Your task to perform on an android device: Go to Amazon Image 0: 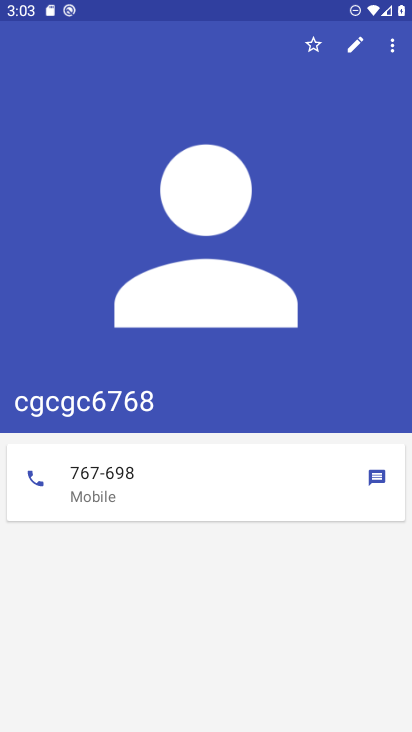
Step 0: press back button
Your task to perform on an android device: Go to Amazon Image 1: 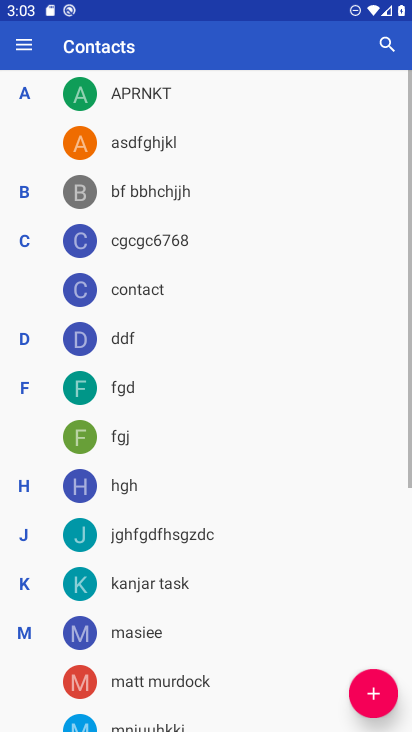
Step 1: press back button
Your task to perform on an android device: Go to Amazon Image 2: 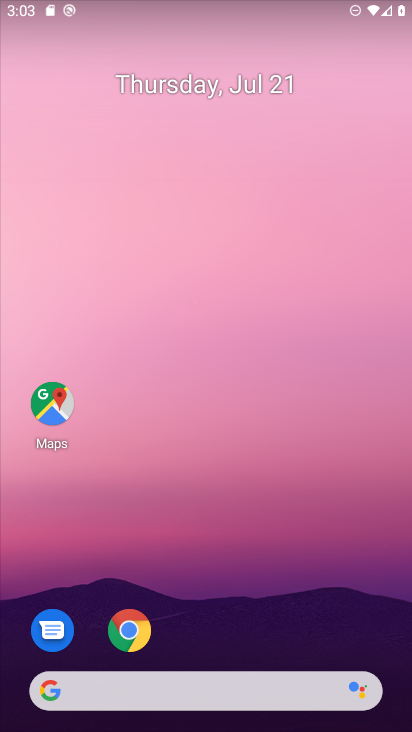
Step 2: click (133, 615)
Your task to perform on an android device: Go to Amazon Image 3: 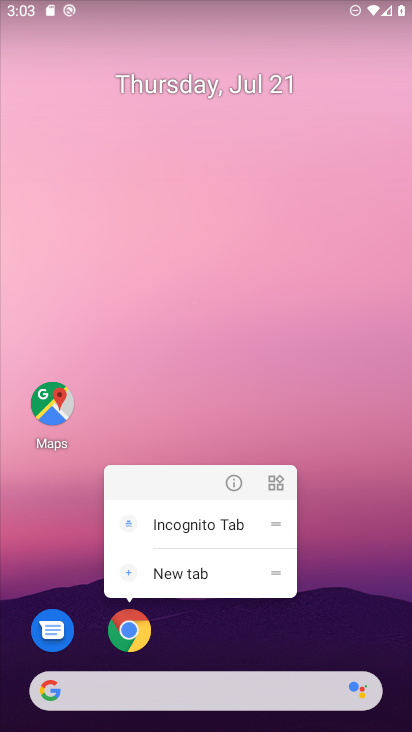
Step 3: click (129, 641)
Your task to perform on an android device: Go to Amazon Image 4: 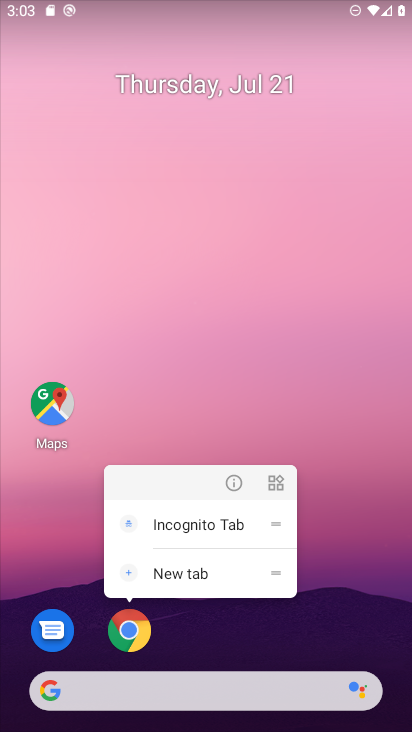
Step 4: click (133, 627)
Your task to perform on an android device: Go to Amazon Image 5: 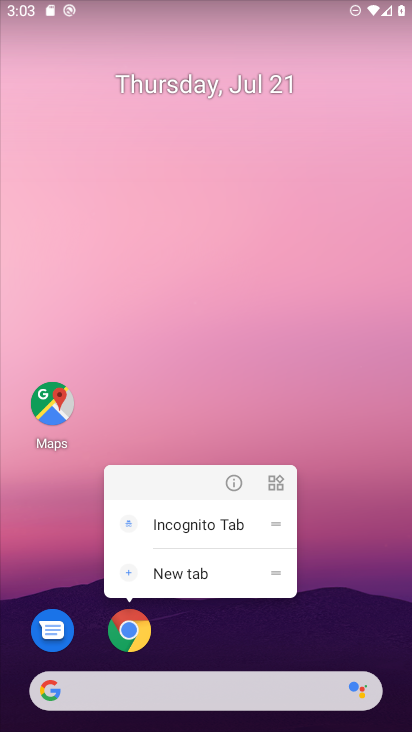
Step 5: click (133, 627)
Your task to perform on an android device: Go to Amazon Image 6: 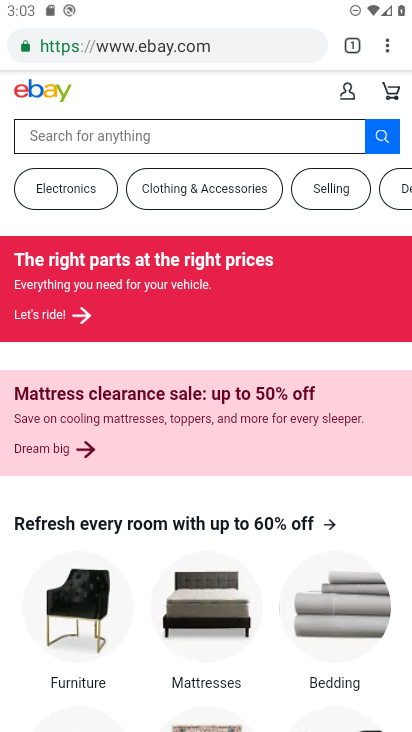
Step 6: click (347, 43)
Your task to perform on an android device: Go to Amazon Image 7: 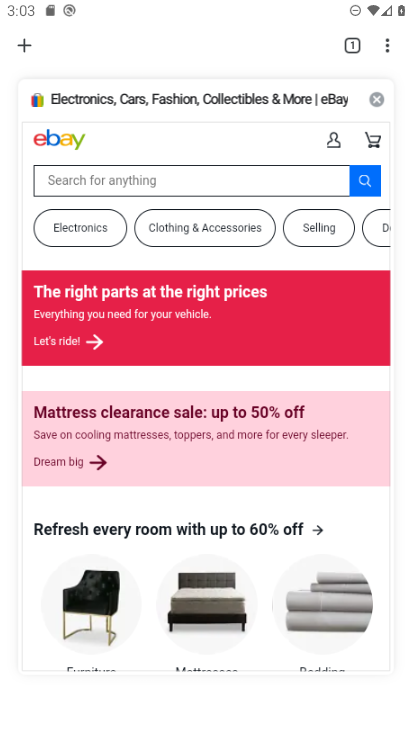
Step 7: click (26, 49)
Your task to perform on an android device: Go to Amazon Image 8: 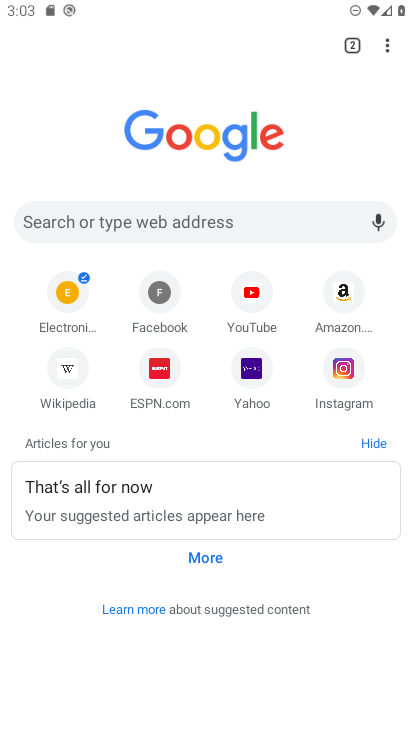
Step 8: click (344, 294)
Your task to perform on an android device: Go to Amazon Image 9: 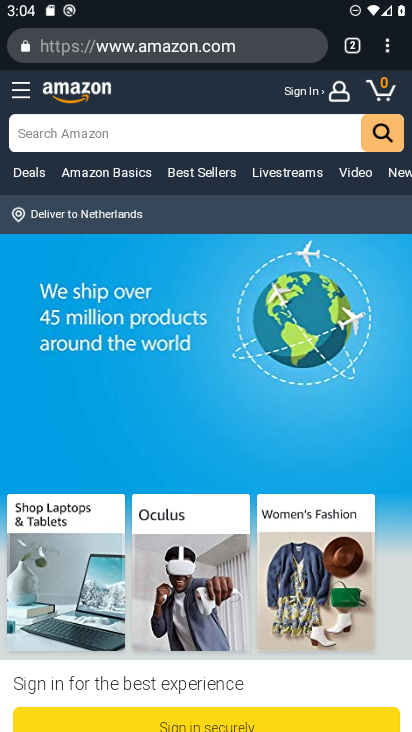
Step 9: task complete